Your task to perform on an android device: Go to Yahoo.com Image 0: 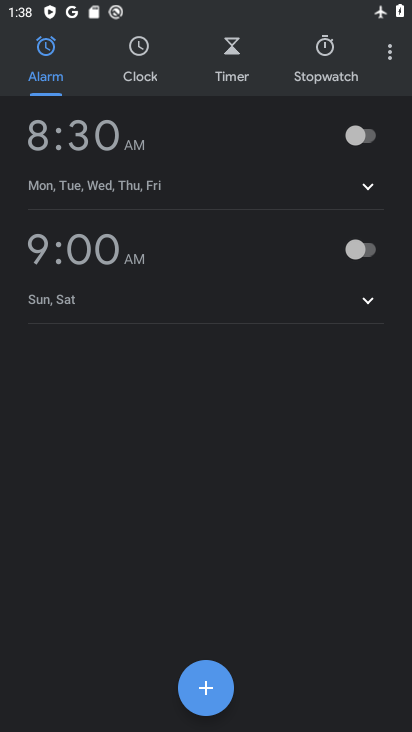
Step 0: press home button
Your task to perform on an android device: Go to Yahoo.com Image 1: 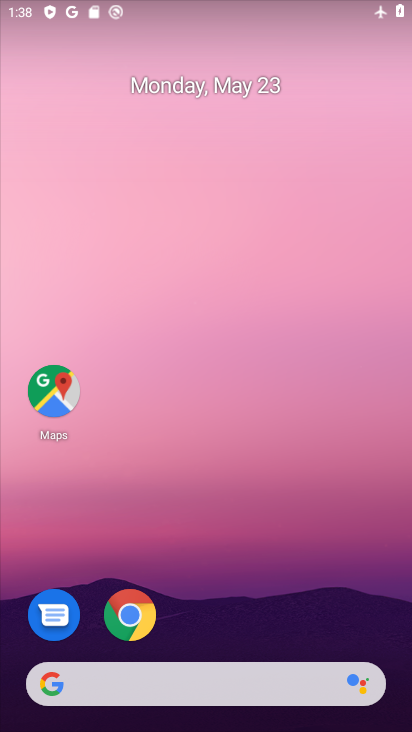
Step 1: drag from (187, 646) to (173, 201)
Your task to perform on an android device: Go to Yahoo.com Image 2: 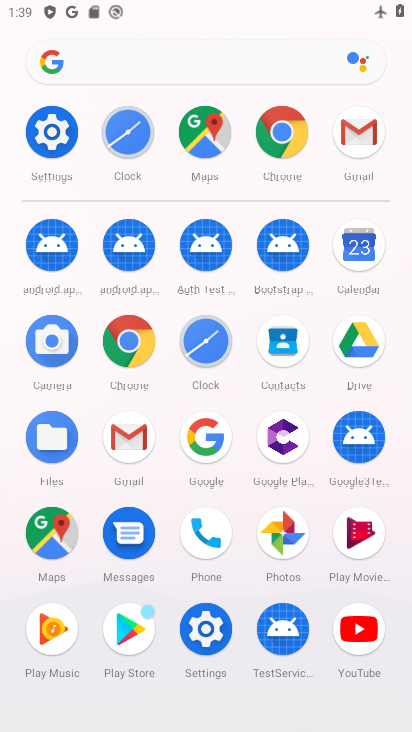
Step 2: click (139, 352)
Your task to perform on an android device: Go to Yahoo.com Image 3: 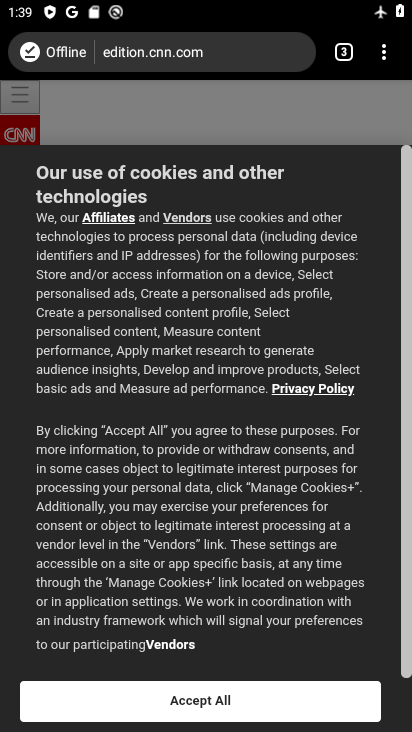
Step 3: click (348, 50)
Your task to perform on an android device: Go to Yahoo.com Image 4: 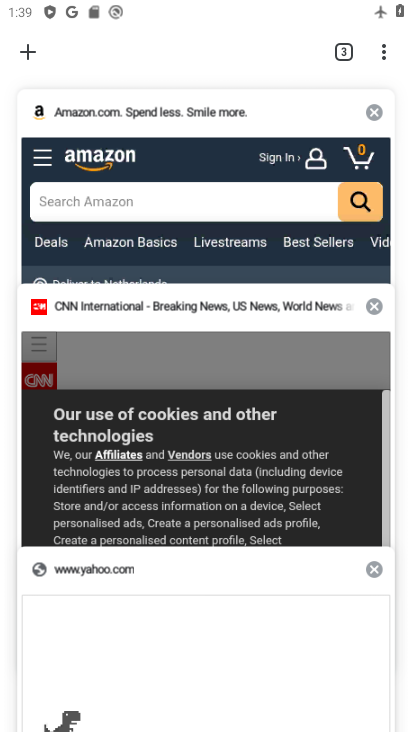
Step 4: click (35, 50)
Your task to perform on an android device: Go to Yahoo.com Image 5: 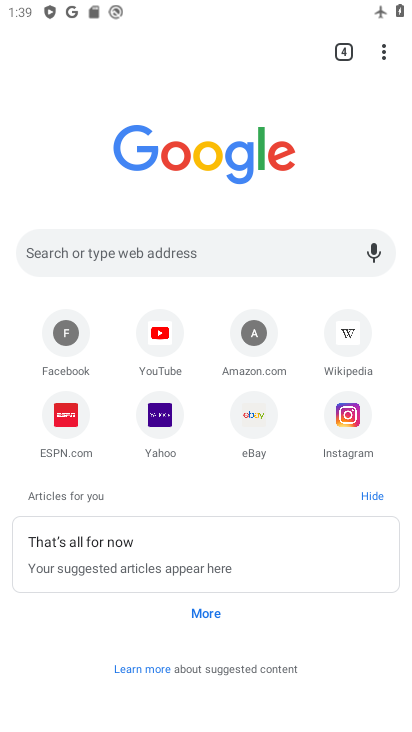
Step 5: click (168, 421)
Your task to perform on an android device: Go to Yahoo.com Image 6: 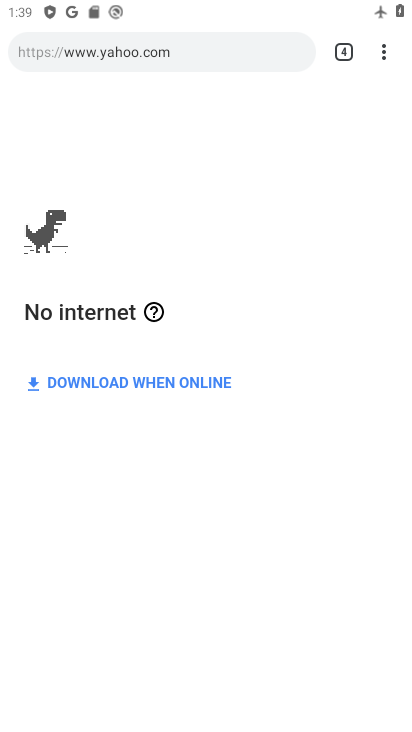
Step 6: task complete